Your task to perform on an android device: add a label to a message in the gmail app Image 0: 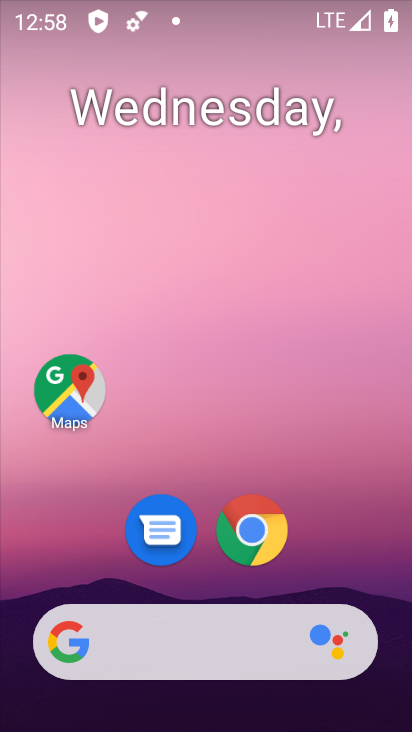
Step 0: press home button
Your task to perform on an android device: add a label to a message in the gmail app Image 1: 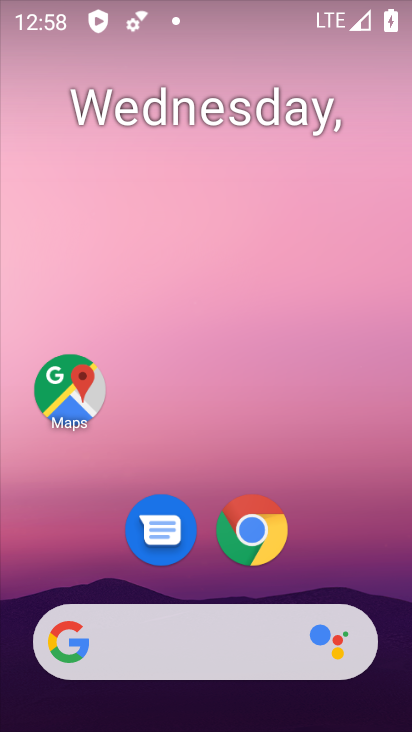
Step 1: drag from (374, 543) to (311, 159)
Your task to perform on an android device: add a label to a message in the gmail app Image 2: 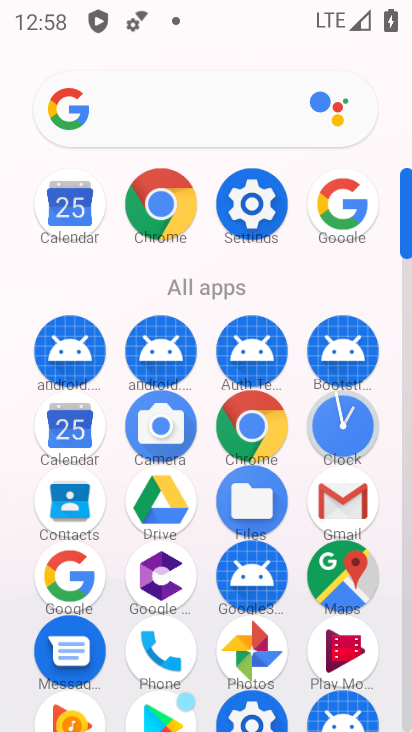
Step 2: click (356, 497)
Your task to perform on an android device: add a label to a message in the gmail app Image 3: 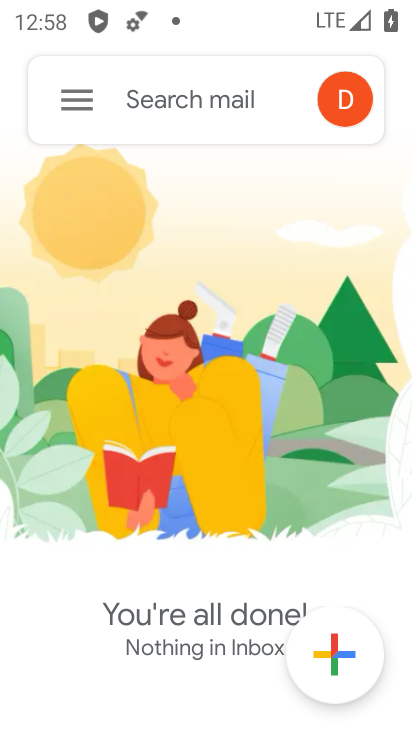
Step 3: click (75, 115)
Your task to perform on an android device: add a label to a message in the gmail app Image 4: 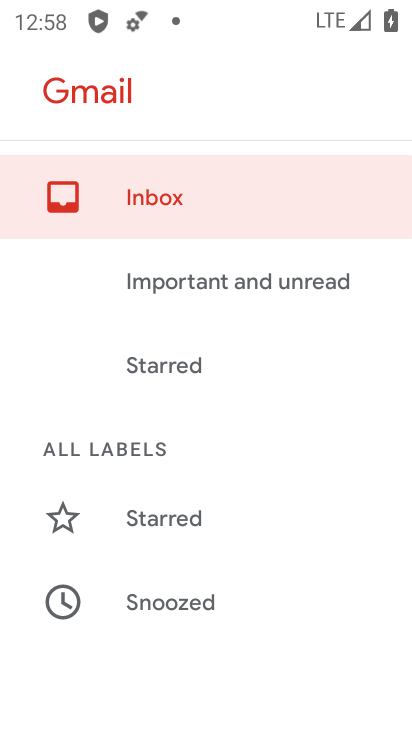
Step 4: drag from (178, 644) to (206, 189)
Your task to perform on an android device: add a label to a message in the gmail app Image 5: 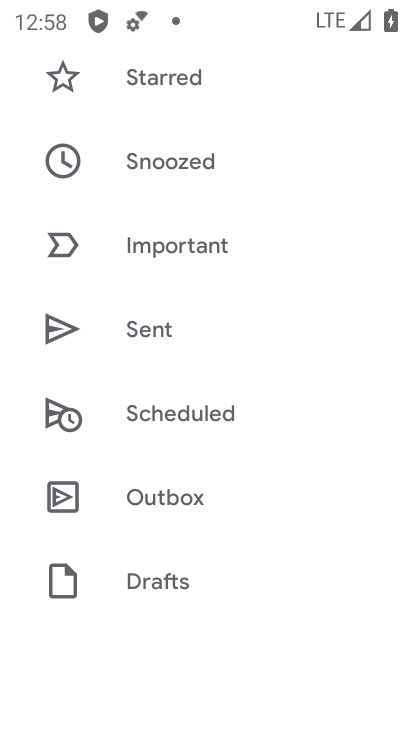
Step 5: drag from (215, 647) to (252, 206)
Your task to perform on an android device: add a label to a message in the gmail app Image 6: 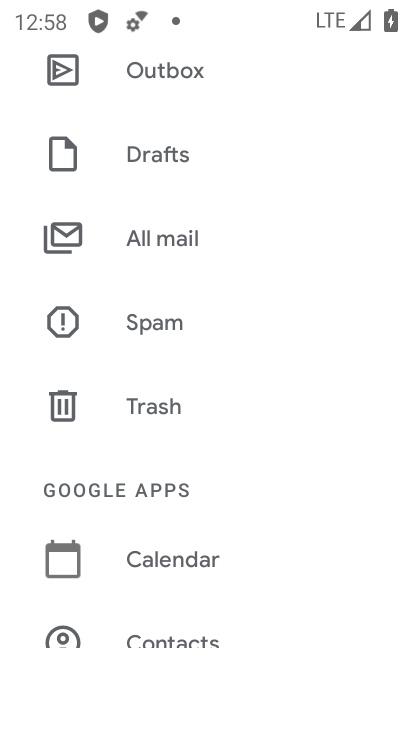
Step 6: click (200, 245)
Your task to perform on an android device: add a label to a message in the gmail app Image 7: 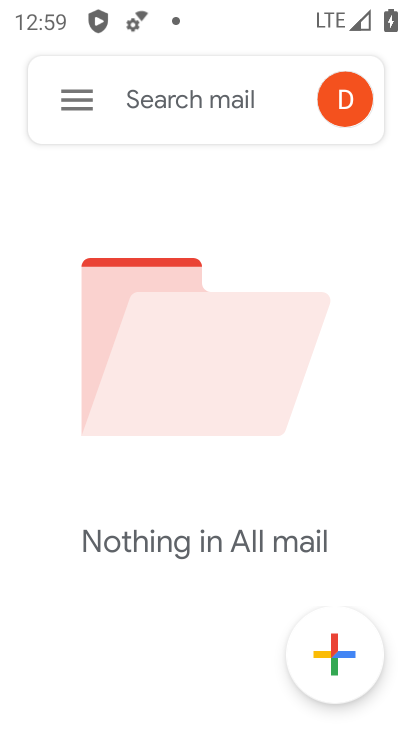
Step 7: task complete